Your task to perform on an android device: Open the calendar and show me this week's events? Image 0: 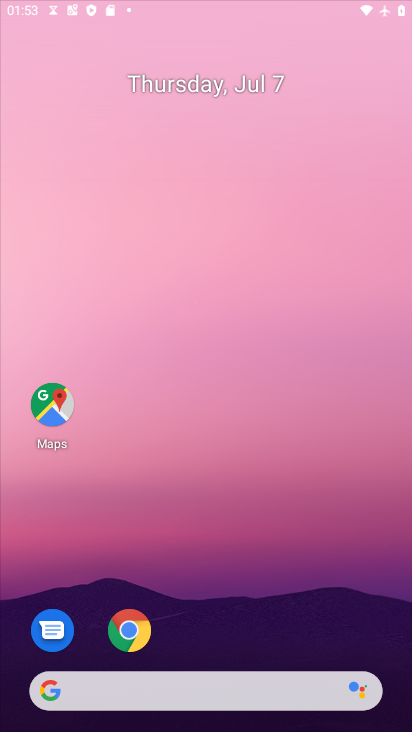
Step 0: drag from (264, 625) to (213, 146)
Your task to perform on an android device: Open the calendar and show me this week's events? Image 1: 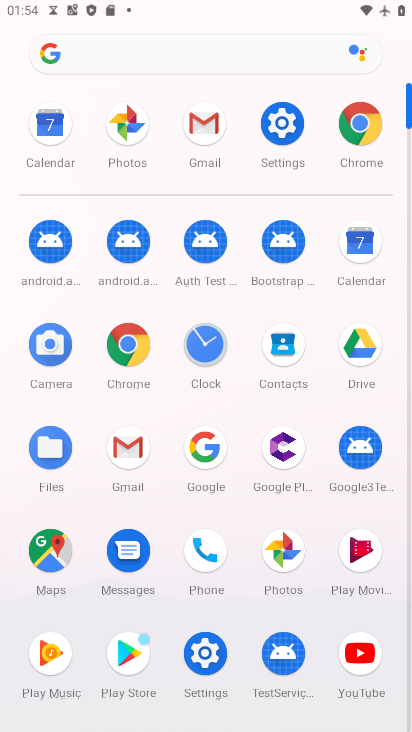
Step 1: click (50, 124)
Your task to perform on an android device: Open the calendar and show me this week's events? Image 2: 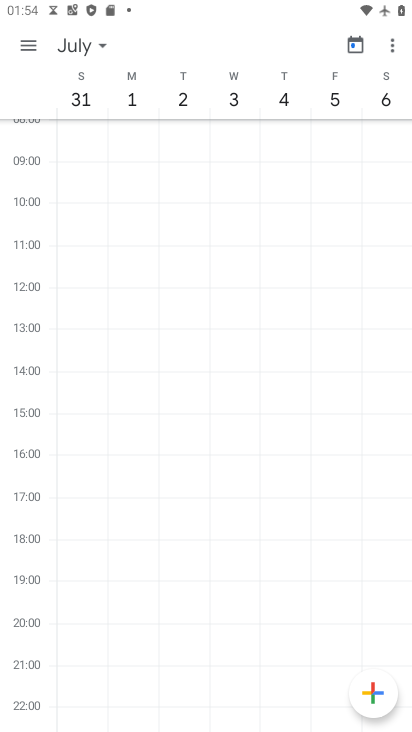
Step 2: click (23, 48)
Your task to perform on an android device: Open the calendar and show me this week's events? Image 3: 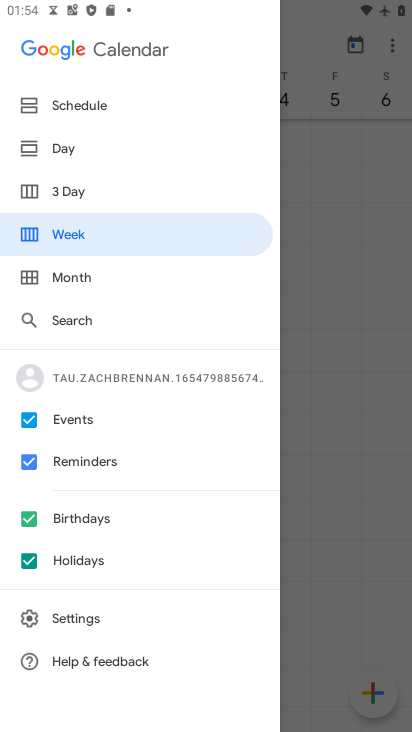
Step 3: click (32, 555)
Your task to perform on an android device: Open the calendar and show me this week's events? Image 4: 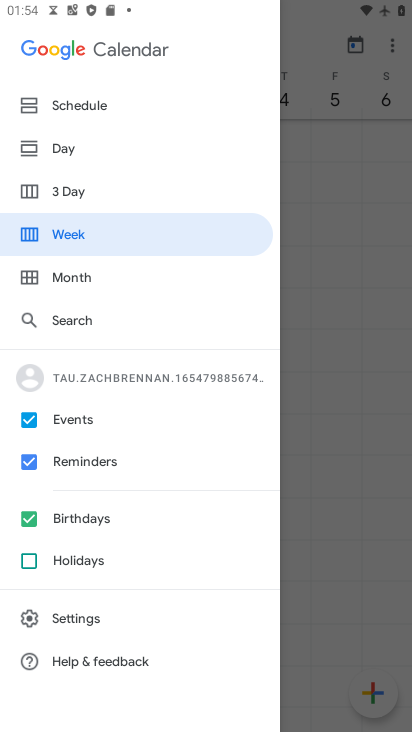
Step 4: click (22, 509)
Your task to perform on an android device: Open the calendar and show me this week's events? Image 5: 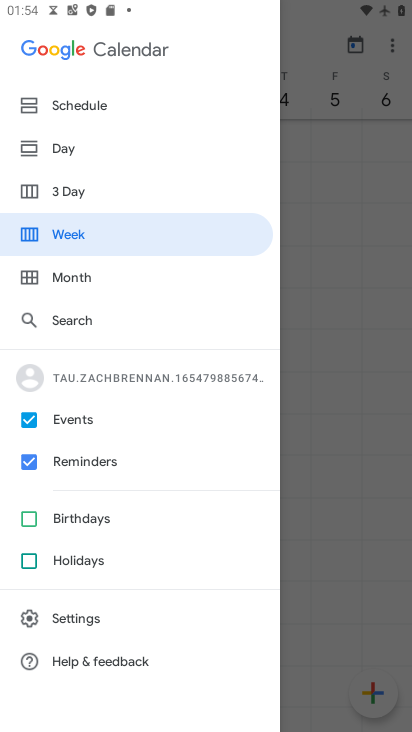
Step 5: click (29, 462)
Your task to perform on an android device: Open the calendar and show me this week's events? Image 6: 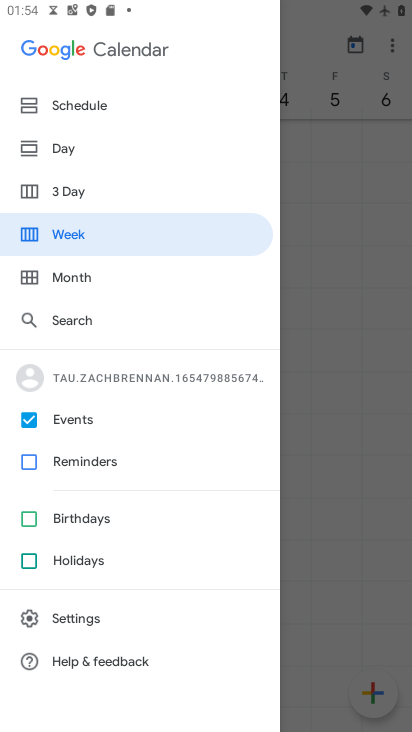
Step 6: click (147, 244)
Your task to perform on an android device: Open the calendar and show me this week's events? Image 7: 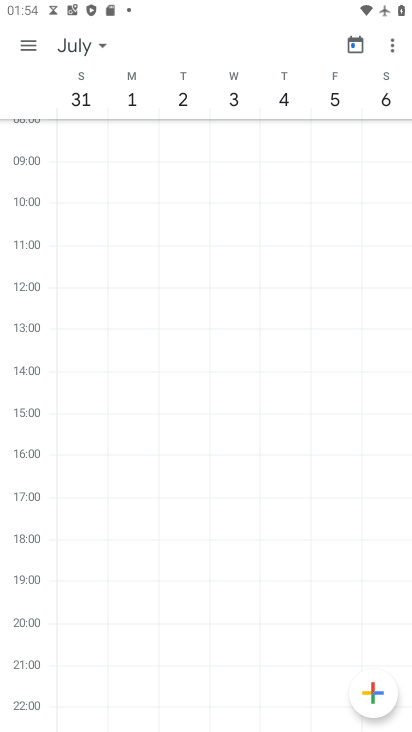
Step 7: task complete